Your task to perform on an android device: Go to display settings Image 0: 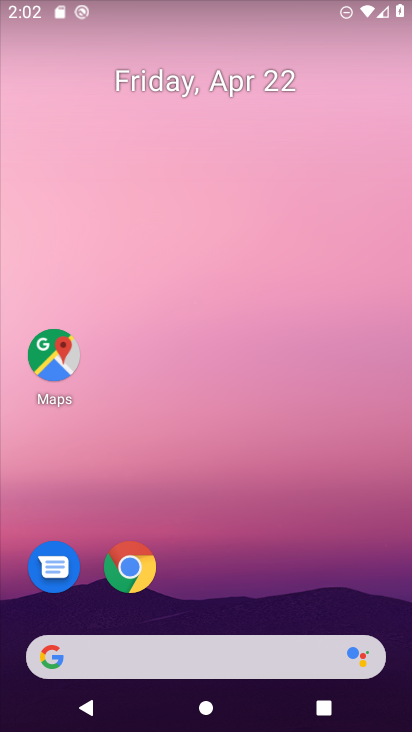
Step 0: drag from (238, 414) to (252, 90)
Your task to perform on an android device: Go to display settings Image 1: 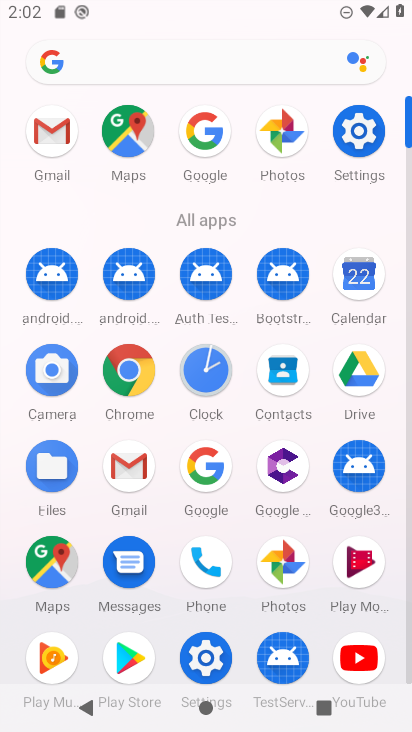
Step 1: click (360, 146)
Your task to perform on an android device: Go to display settings Image 2: 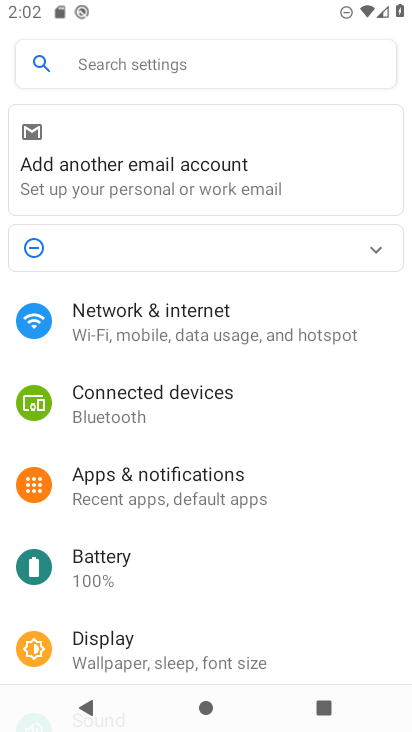
Step 2: drag from (187, 512) to (232, 156)
Your task to perform on an android device: Go to display settings Image 3: 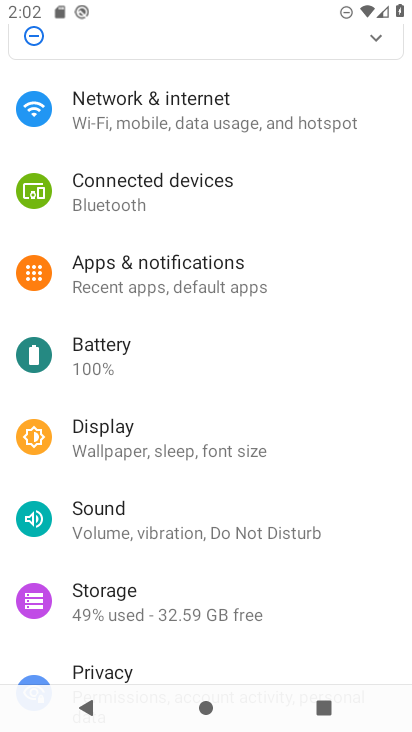
Step 3: click (143, 433)
Your task to perform on an android device: Go to display settings Image 4: 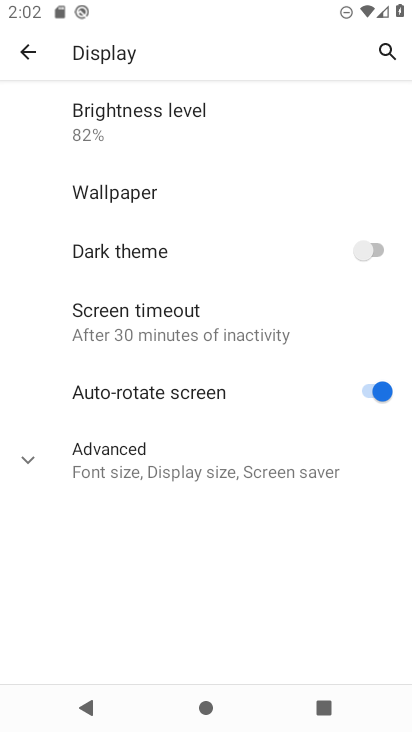
Step 4: task complete